Your task to perform on an android device: Go to privacy settings Image 0: 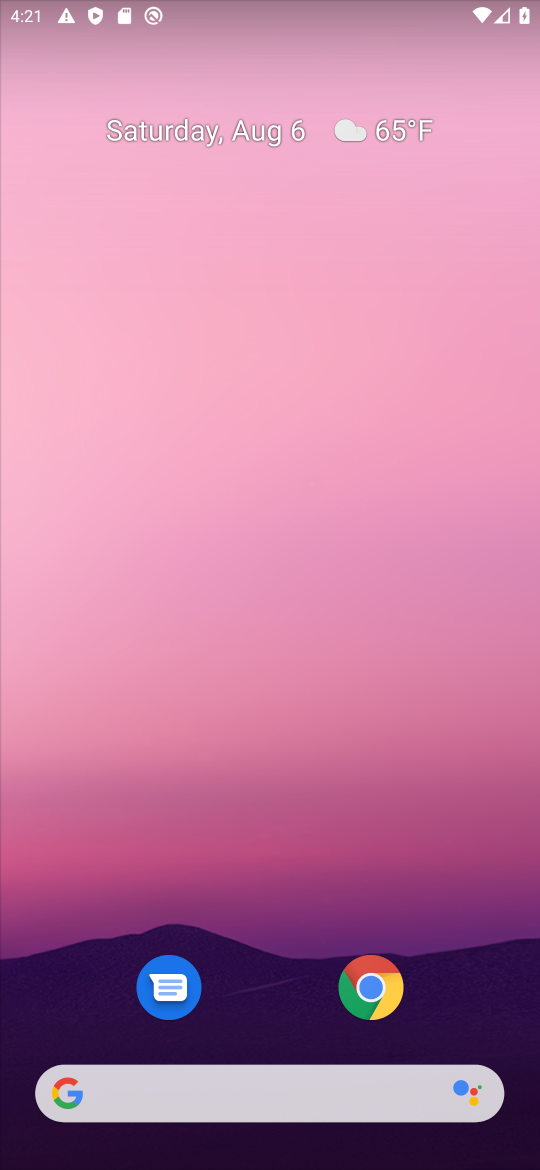
Step 0: drag from (256, 949) to (325, 289)
Your task to perform on an android device: Go to privacy settings Image 1: 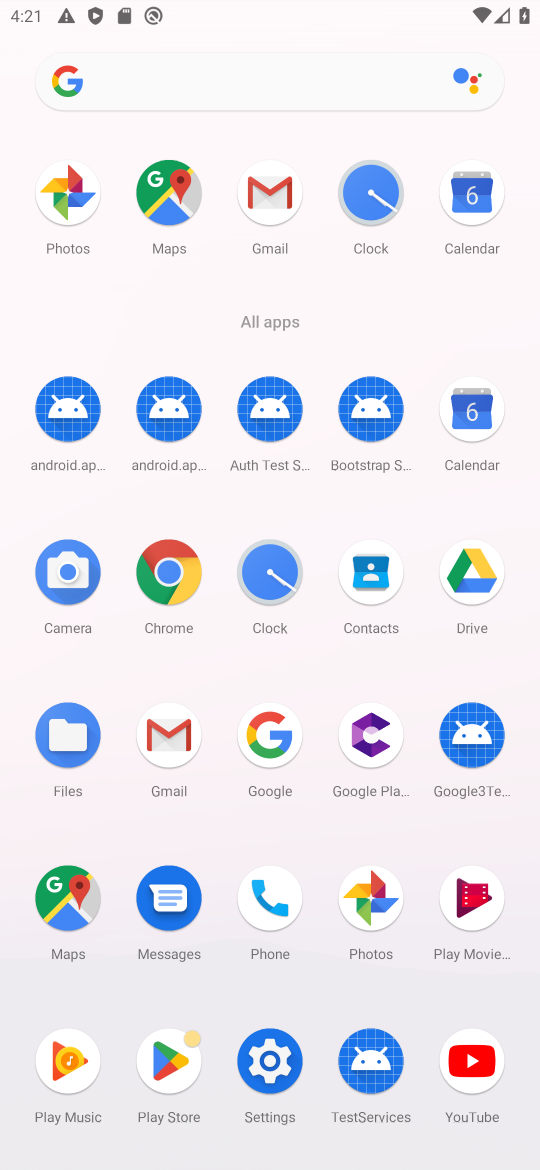
Step 1: click (264, 1043)
Your task to perform on an android device: Go to privacy settings Image 2: 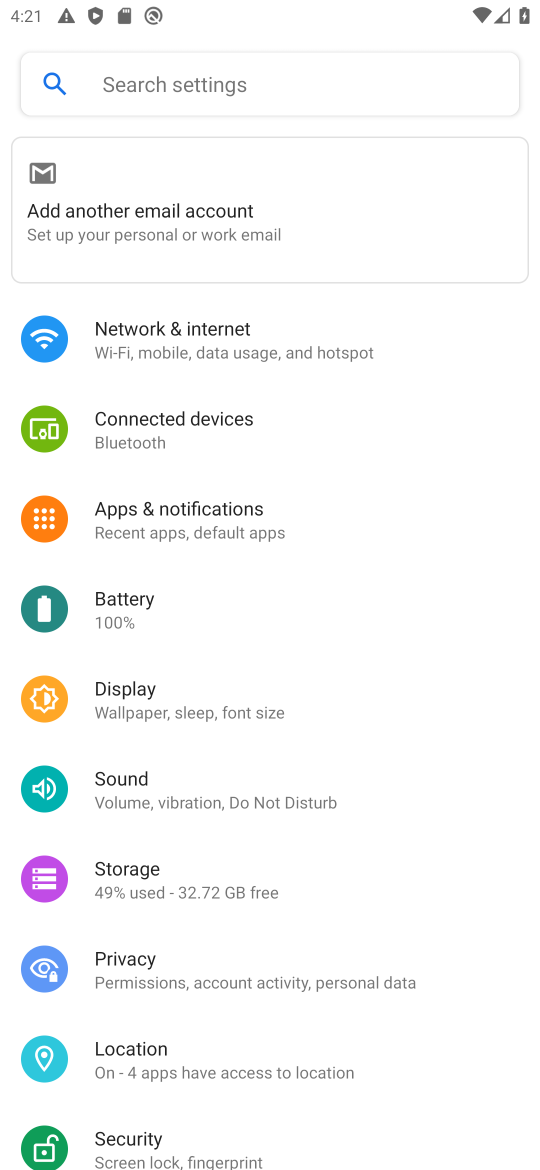
Step 2: click (157, 965)
Your task to perform on an android device: Go to privacy settings Image 3: 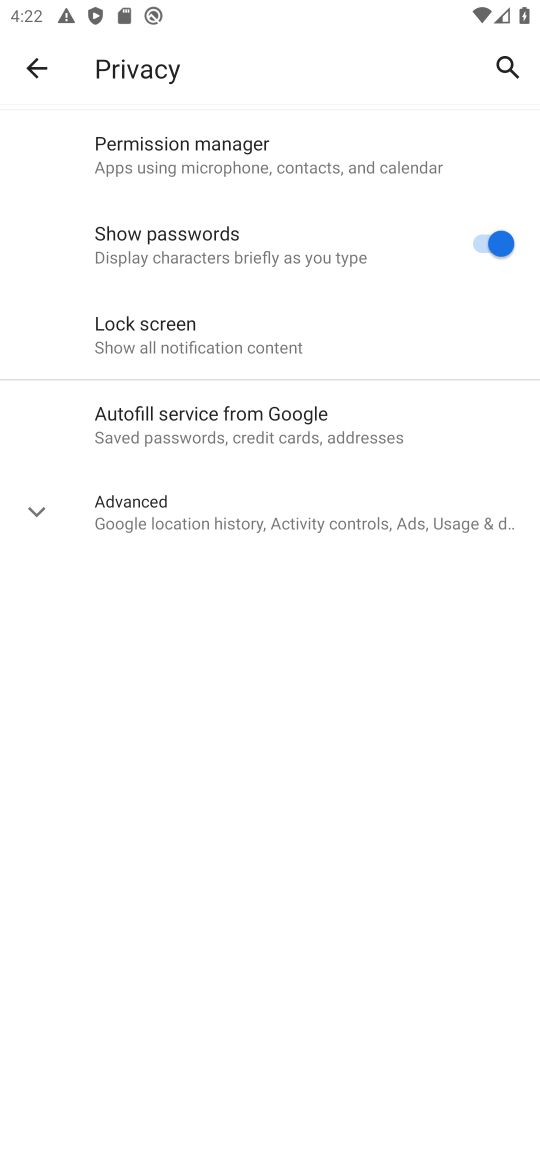
Step 3: task complete